Your task to perform on an android device: Search for "razer deathadder" on newegg.com, select the first entry, add it to the cart, then select checkout. Image 0: 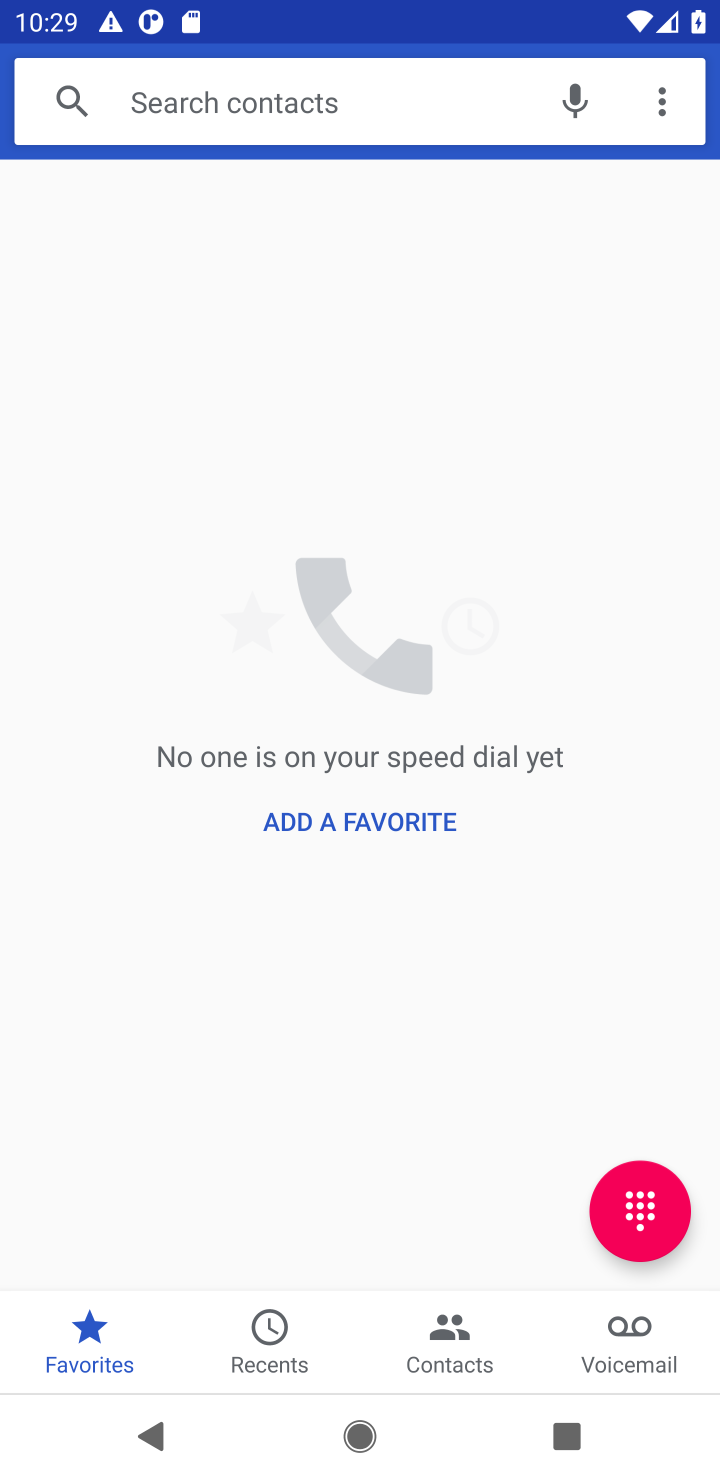
Step 0: press home button
Your task to perform on an android device: Search for "razer deathadder" on newegg.com, select the first entry, add it to the cart, then select checkout. Image 1: 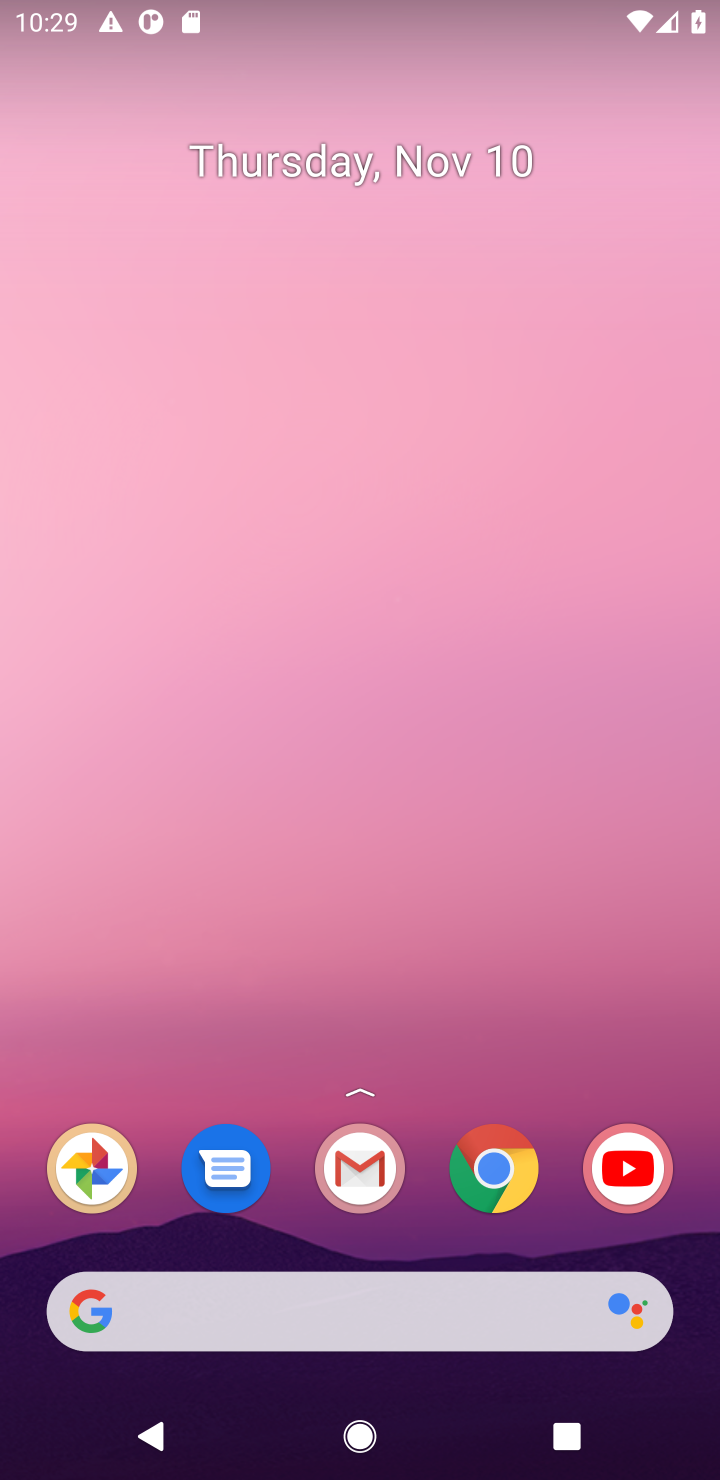
Step 1: click (485, 1172)
Your task to perform on an android device: Search for "razer deathadder" on newegg.com, select the first entry, add it to the cart, then select checkout. Image 2: 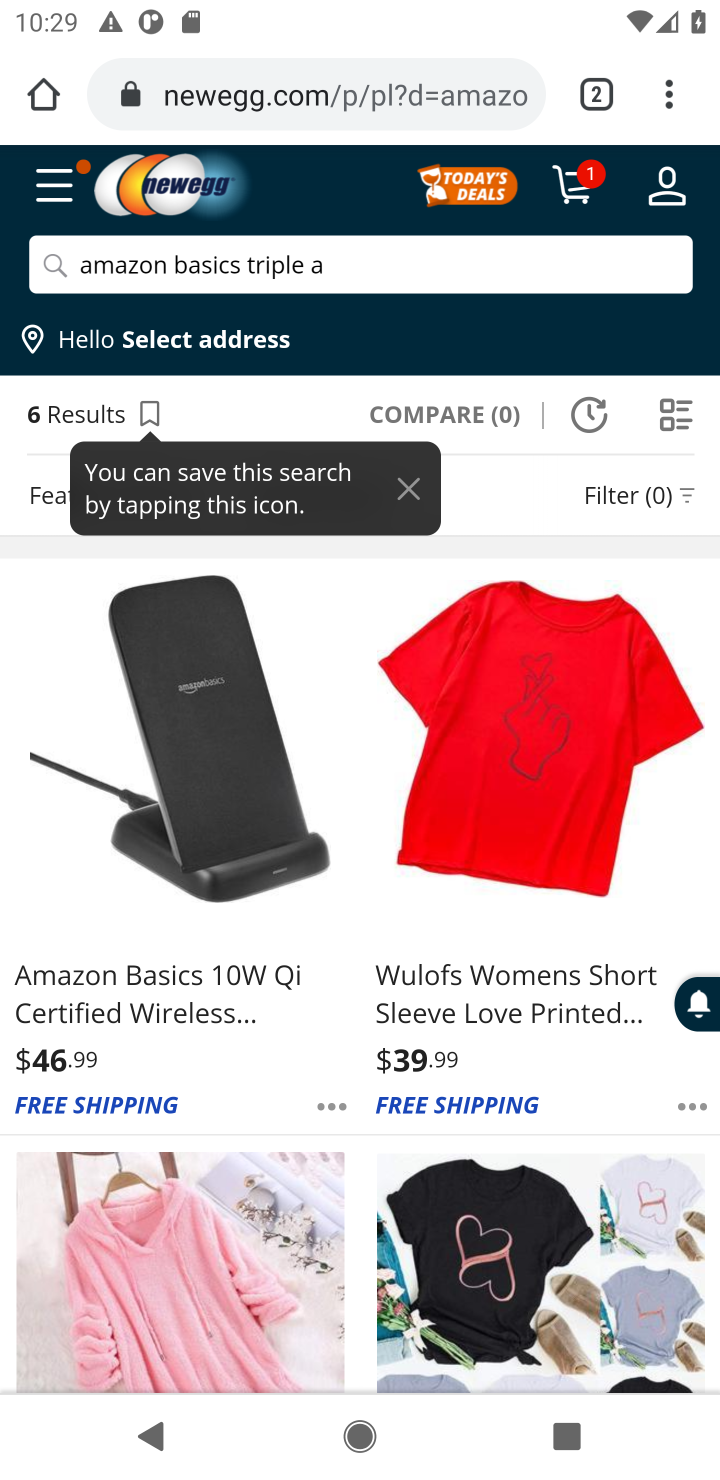
Step 2: click (299, 270)
Your task to perform on an android device: Search for "razer deathadder" on newegg.com, select the first entry, add it to the cart, then select checkout. Image 3: 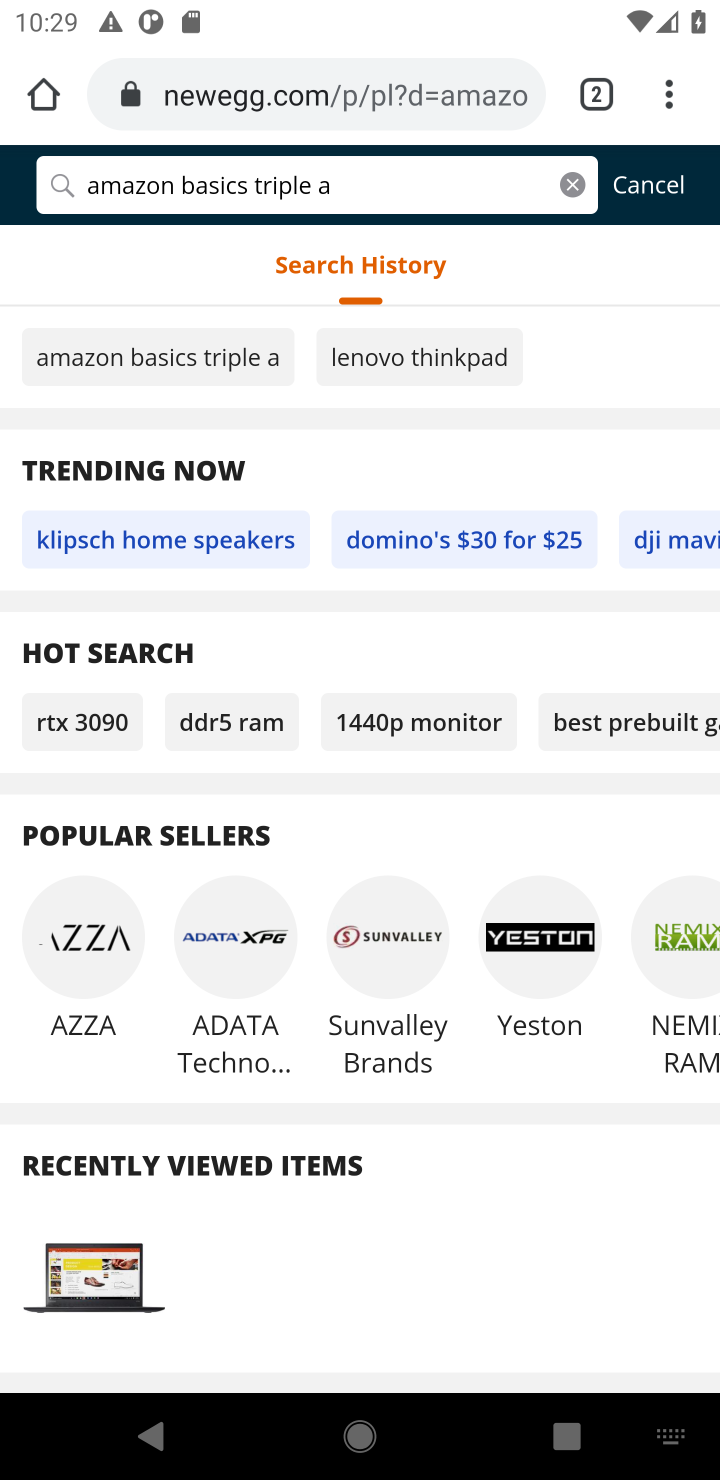
Step 3: click (566, 196)
Your task to perform on an android device: Search for "razer deathadder" on newegg.com, select the first entry, add it to the cart, then select checkout. Image 4: 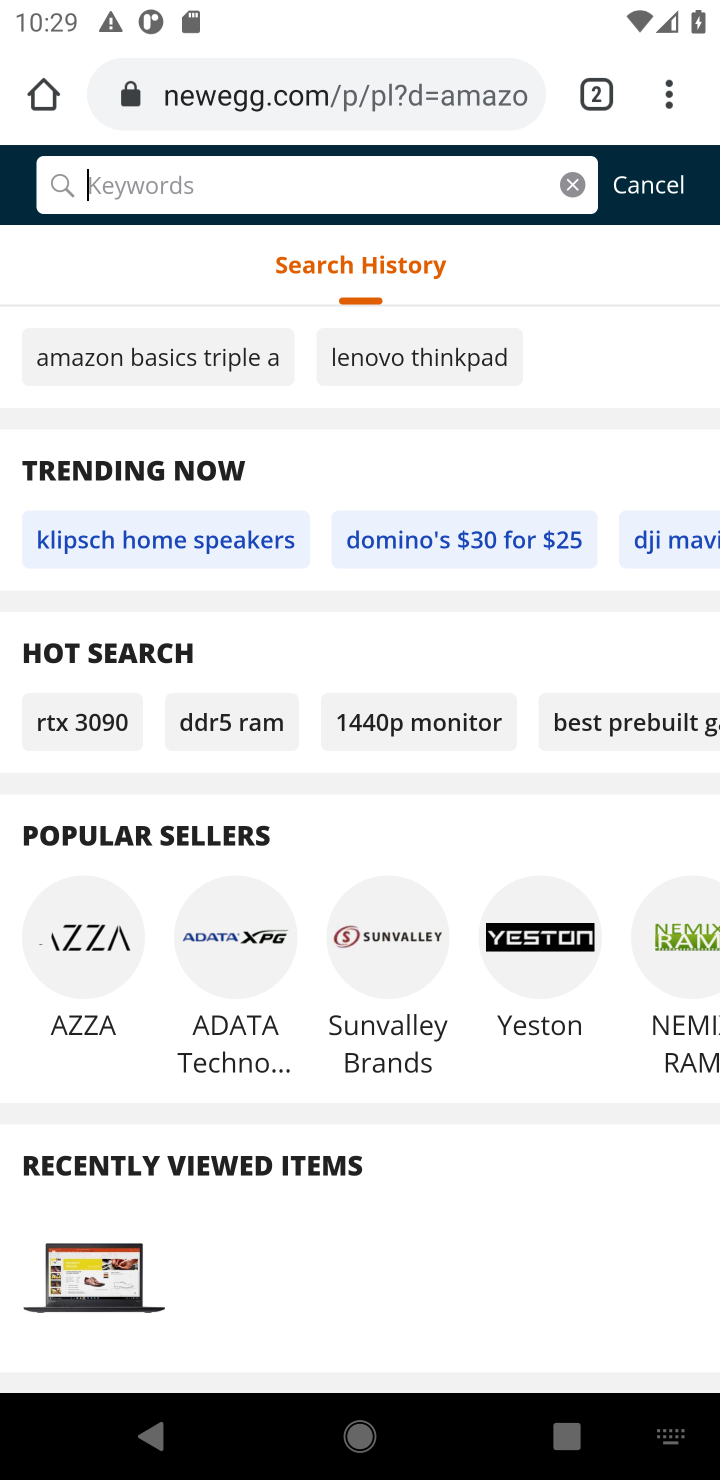
Step 4: type "razer deathadder"
Your task to perform on an android device: Search for "razer deathadder" on newegg.com, select the first entry, add it to the cart, then select checkout. Image 5: 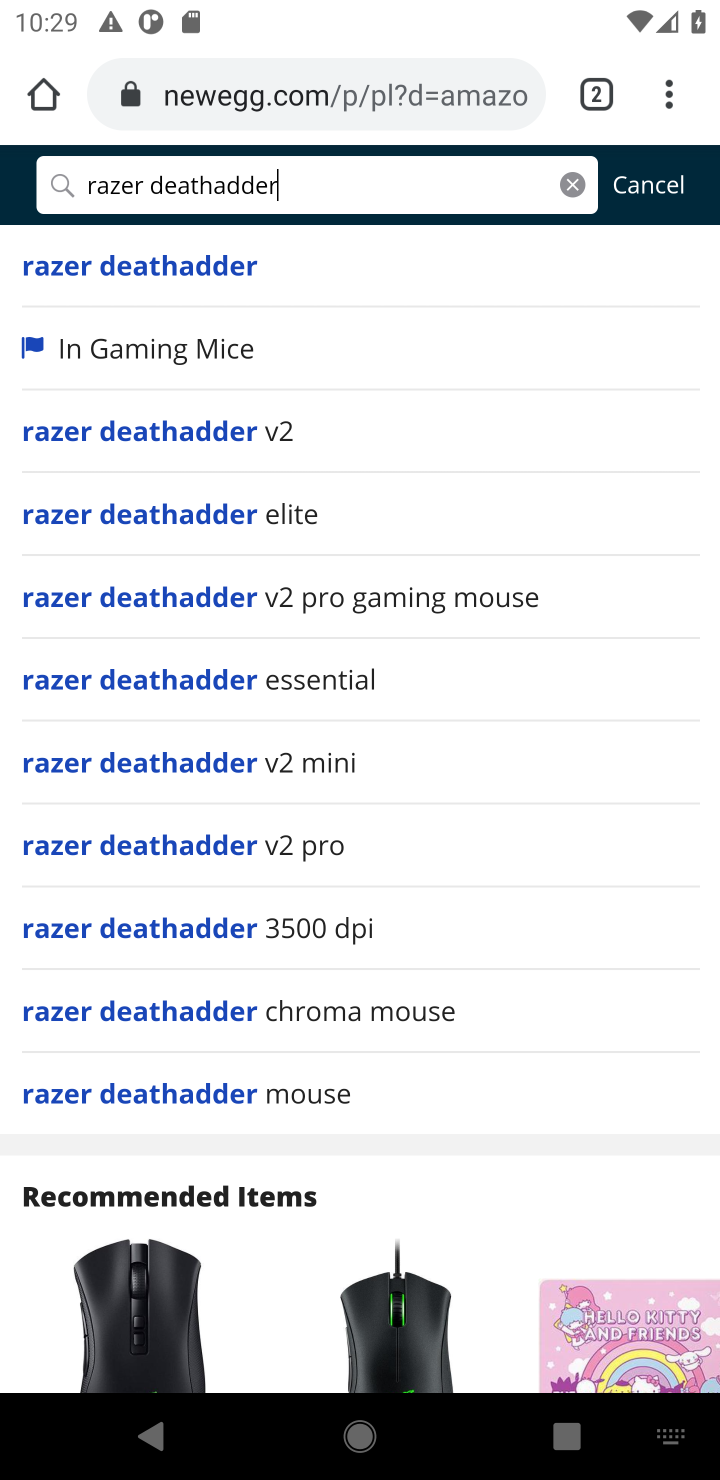
Step 5: click (164, 280)
Your task to perform on an android device: Search for "razer deathadder" on newegg.com, select the first entry, add it to the cart, then select checkout. Image 6: 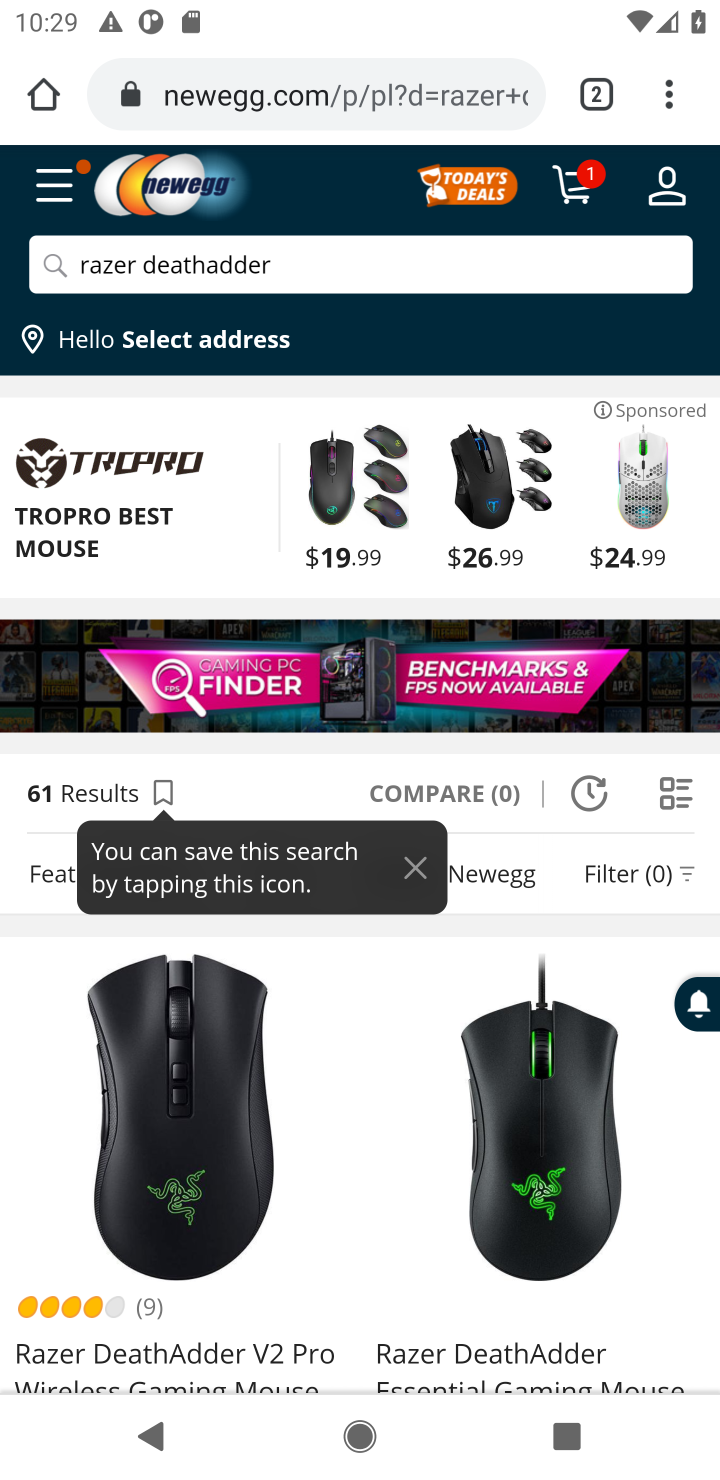
Step 6: drag from (263, 962) to (263, 482)
Your task to perform on an android device: Search for "razer deathadder" on newegg.com, select the first entry, add it to the cart, then select checkout. Image 7: 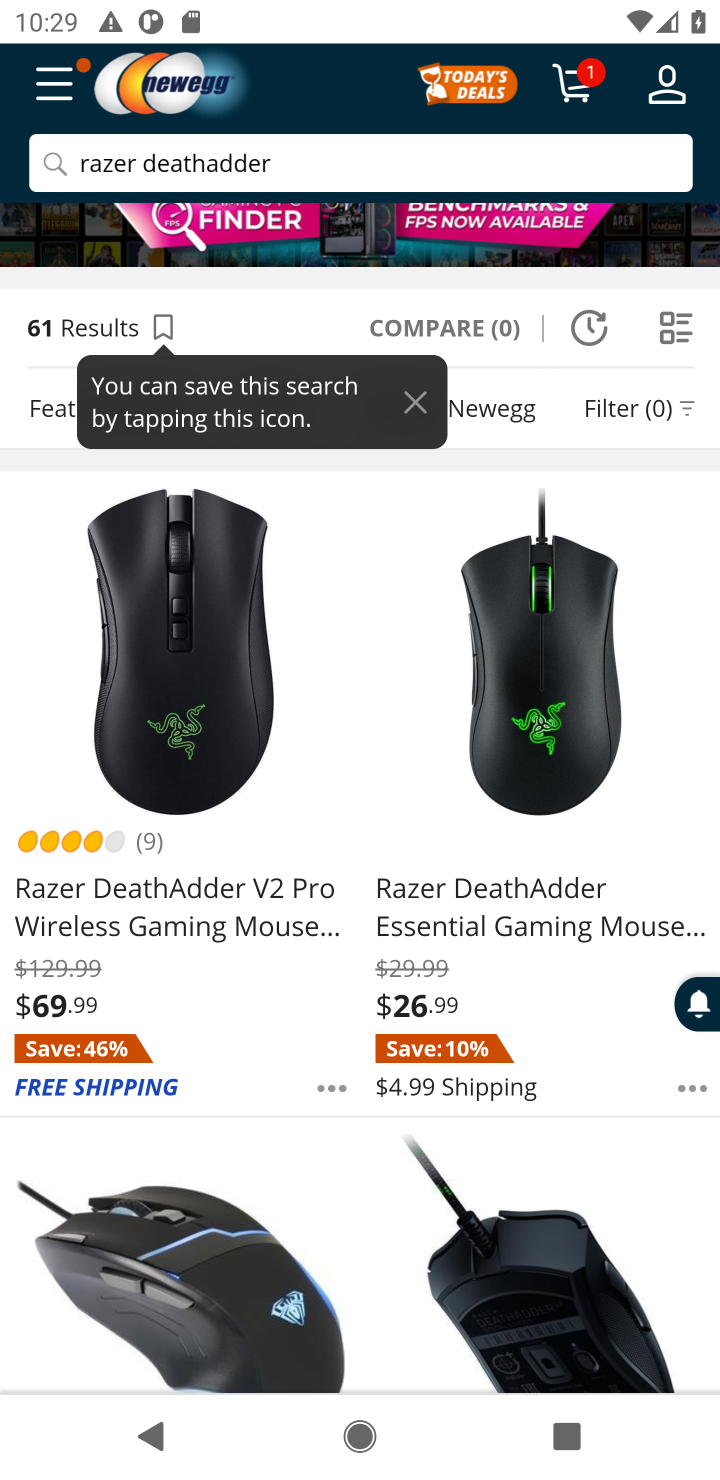
Step 7: click (176, 671)
Your task to perform on an android device: Search for "razer deathadder" on newegg.com, select the first entry, add it to the cart, then select checkout. Image 8: 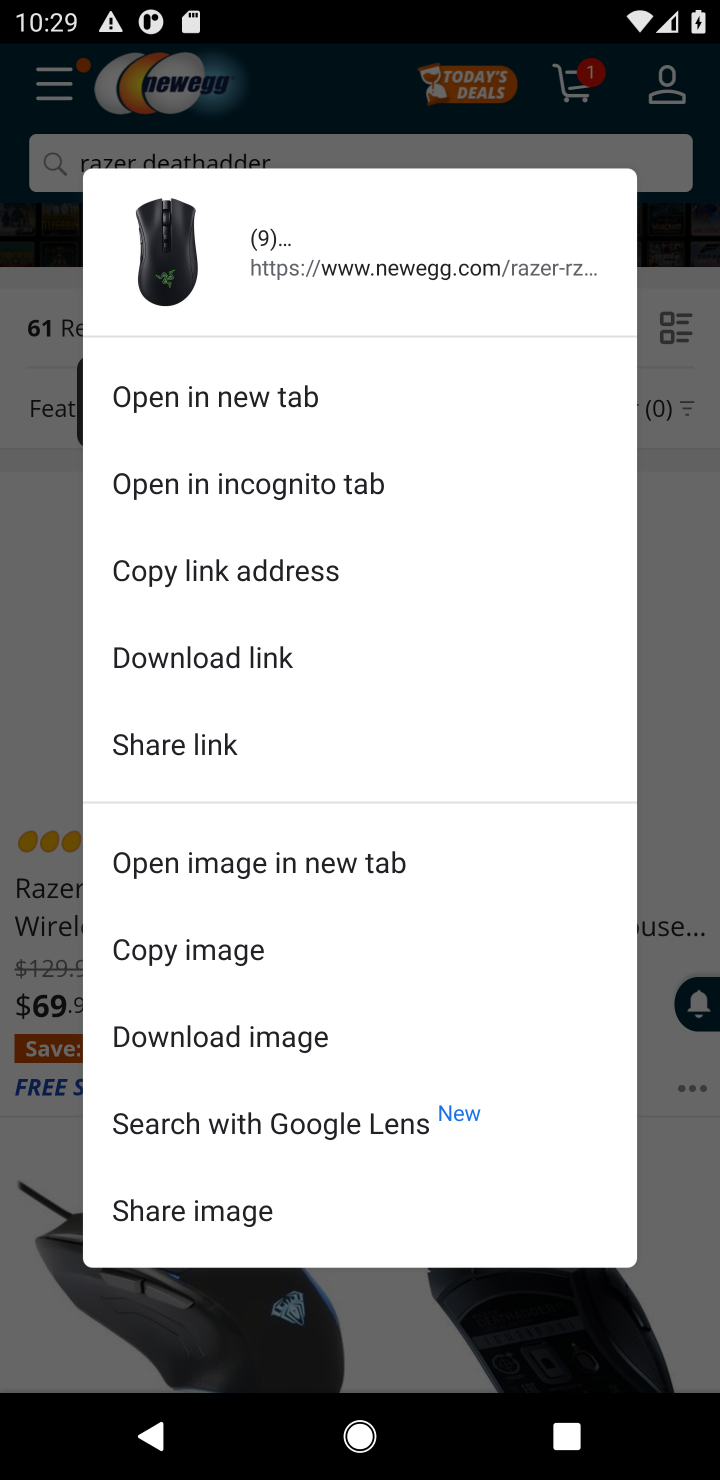
Step 8: click (76, 701)
Your task to perform on an android device: Search for "razer deathadder" on newegg.com, select the first entry, add it to the cart, then select checkout. Image 9: 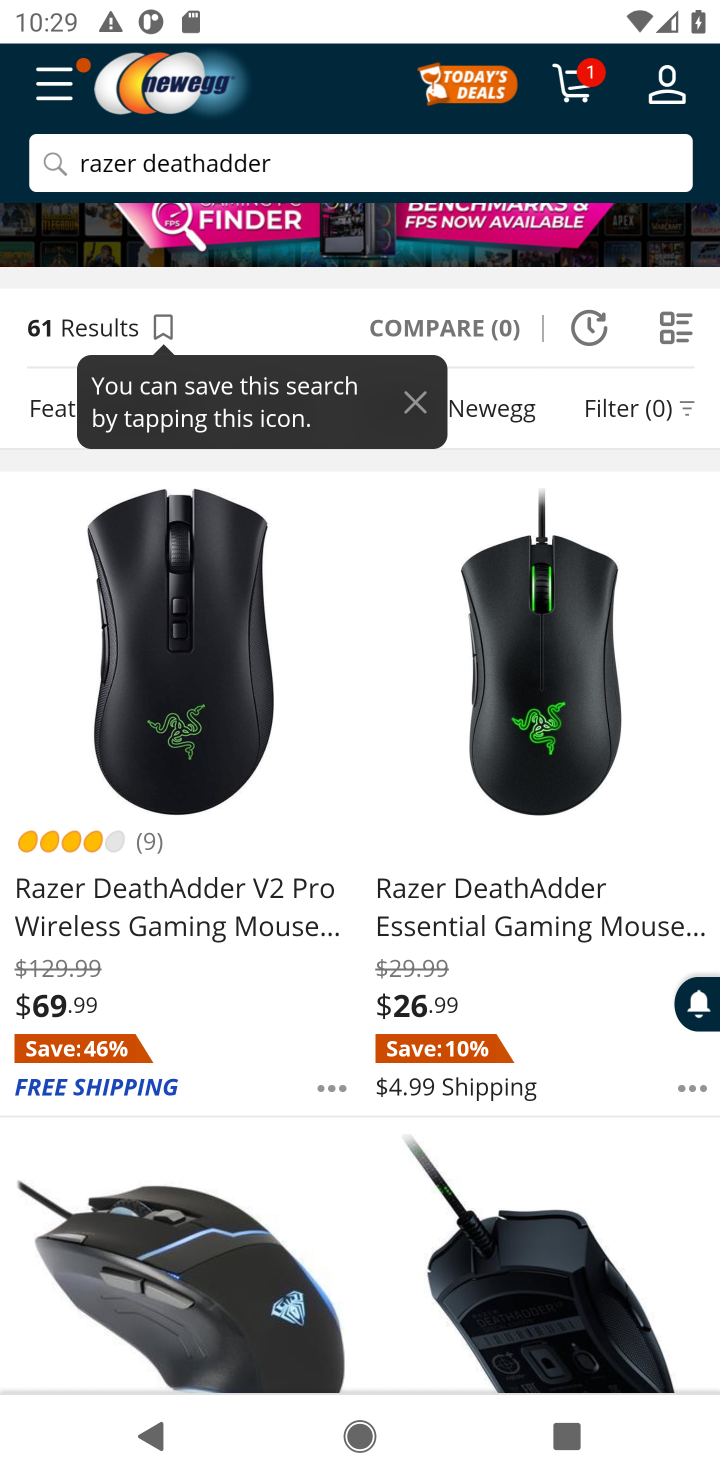
Step 9: click (116, 682)
Your task to perform on an android device: Search for "razer deathadder" on newegg.com, select the first entry, add it to the cart, then select checkout. Image 10: 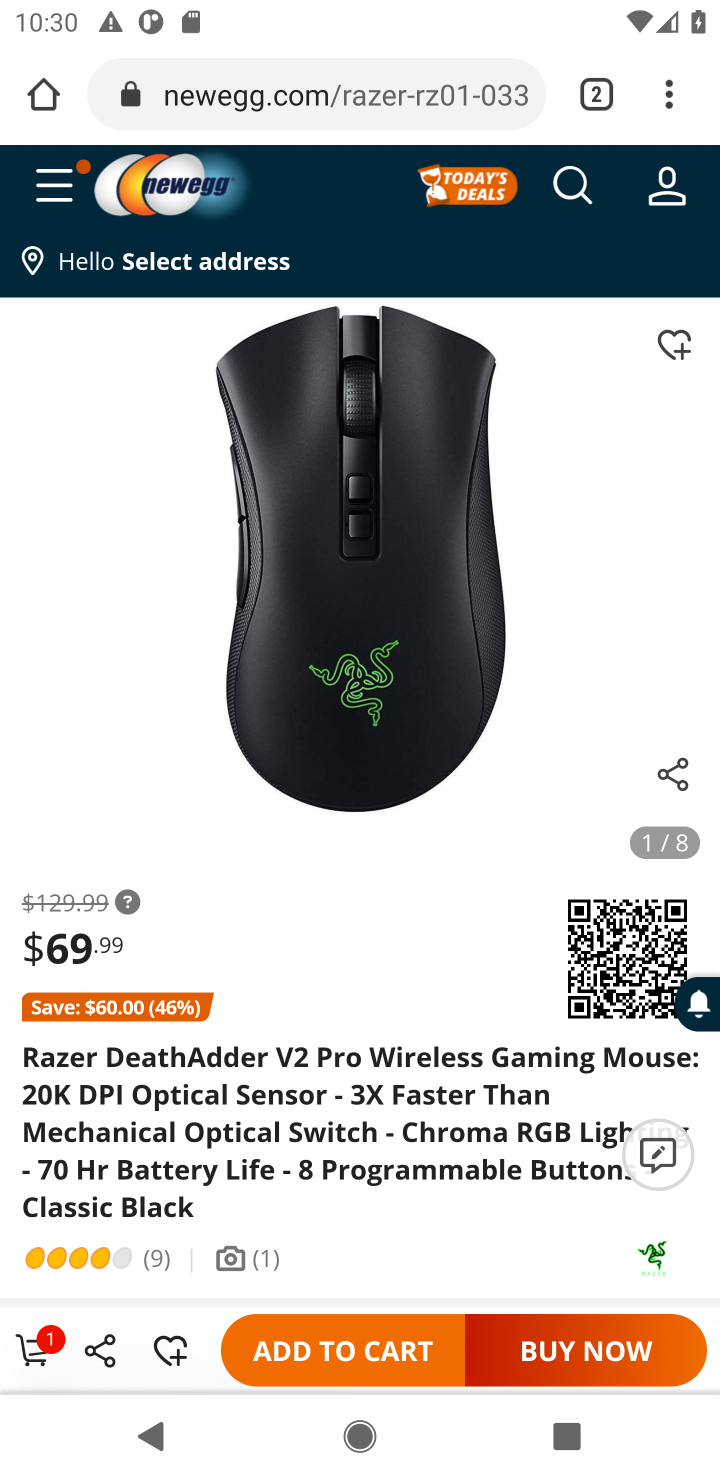
Step 10: click (381, 1348)
Your task to perform on an android device: Search for "razer deathadder" on newegg.com, select the first entry, add it to the cart, then select checkout. Image 11: 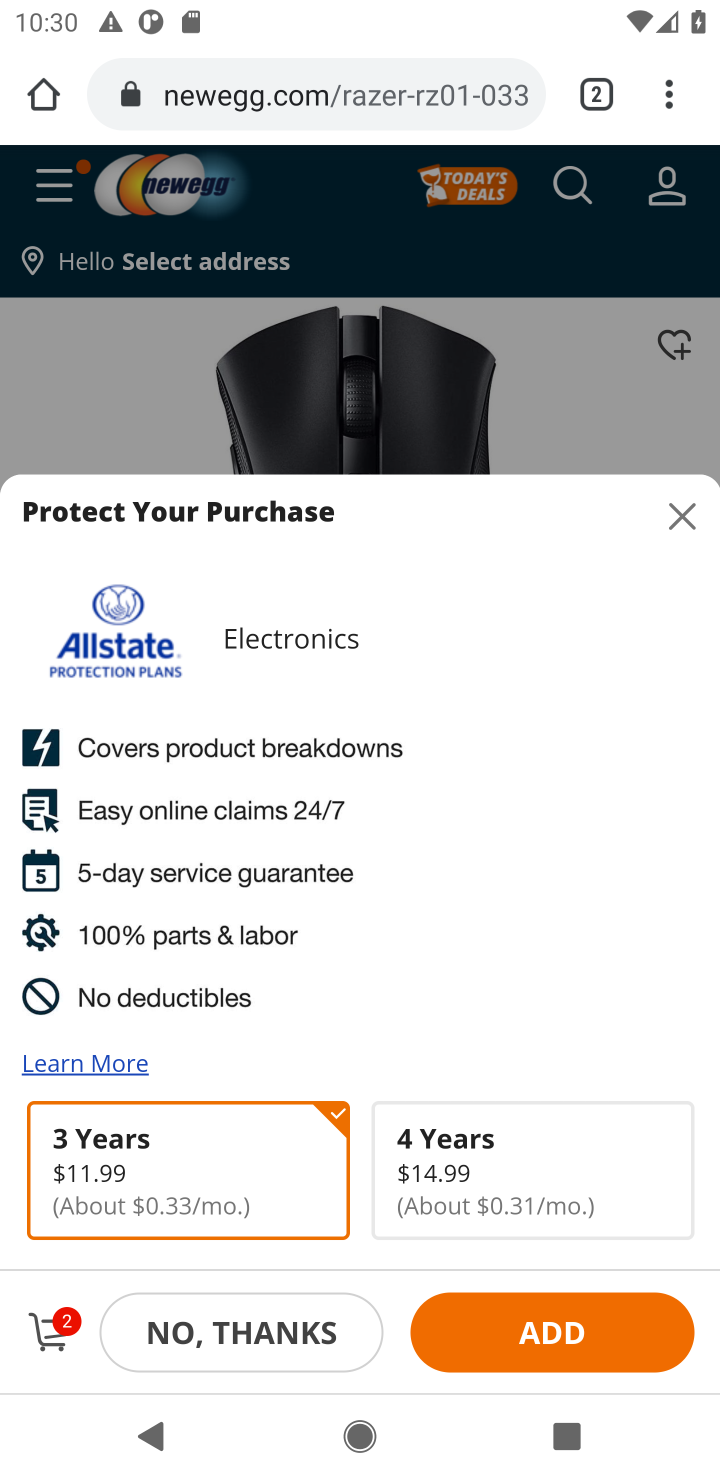
Step 11: click (46, 1340)
Your task to perform on an android device: Search for "razer deathadder" on newegg.com, select the first entry, add it to the cart, then select checkout. Image 12: 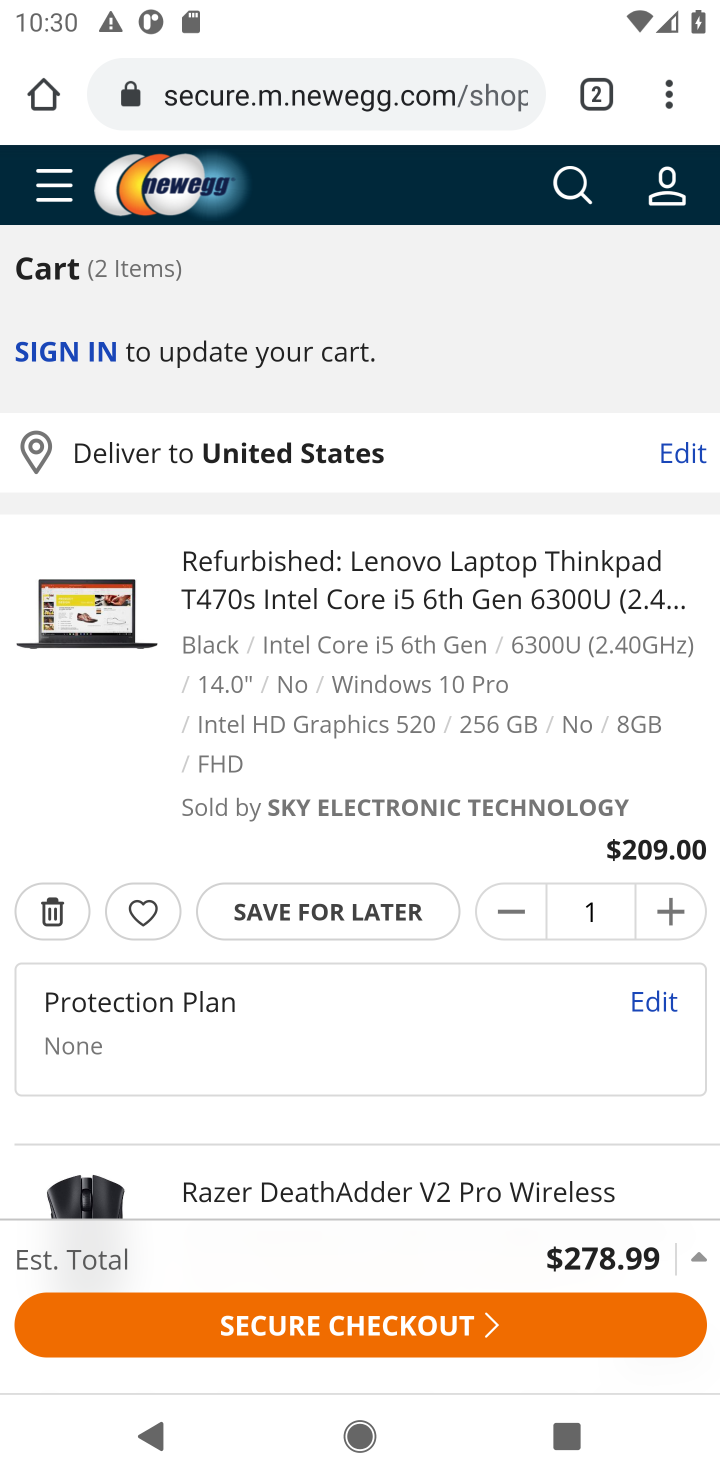
Step 12: click (282, 1327)
Your task to perform on an android device: Search for "razer deathadder" on newegg.com, select the first entry, add it to the cart, then select checkout. Image 13: 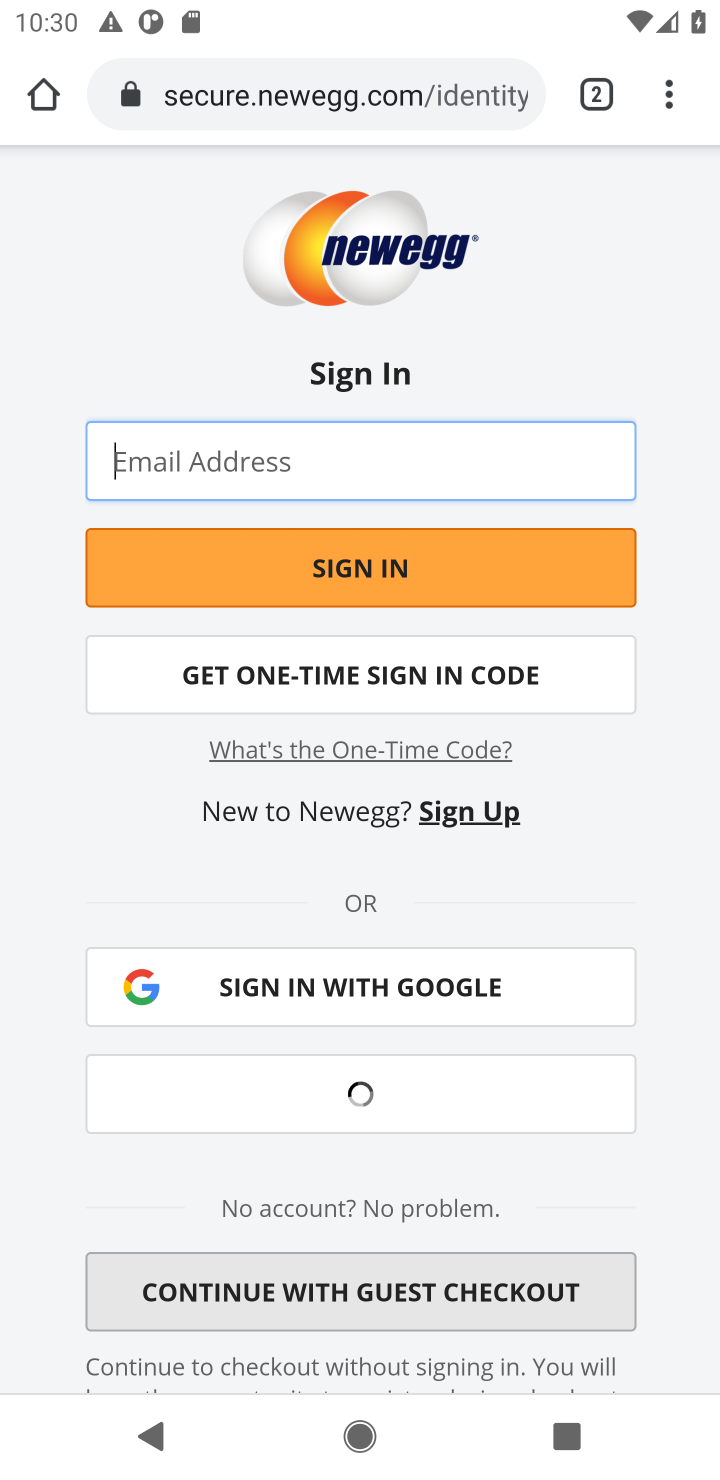
Step 13: task complete